Your task to perform on an android device: check android version Image 0: 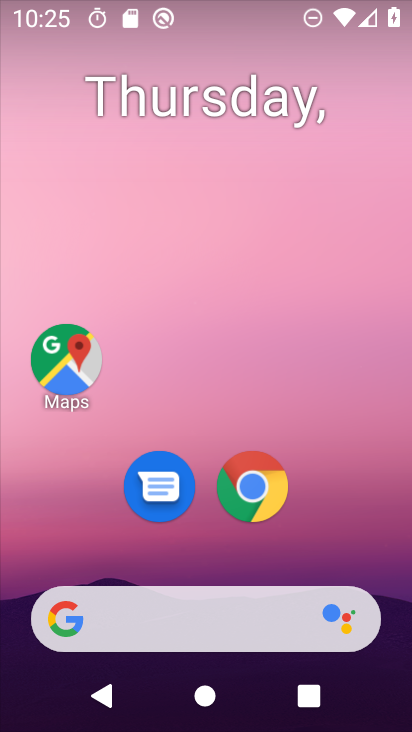
Step 0: drag from (208, 558) to (323, 54)
Your task to perform on an android device: check android version Image 1: 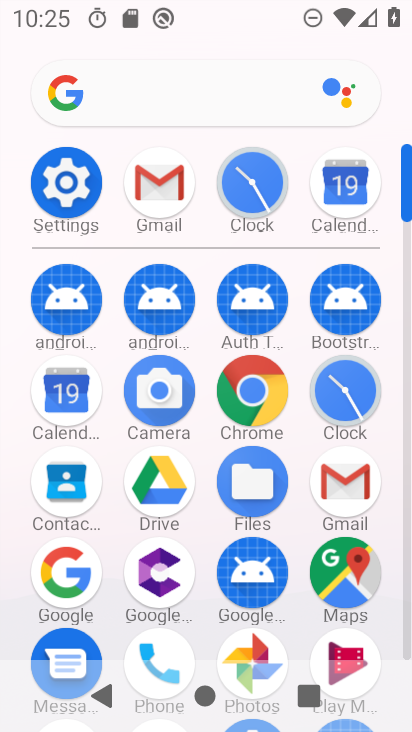
Step 1: click (61, 175)
Your task to perform on an android device: check android version Image 2: 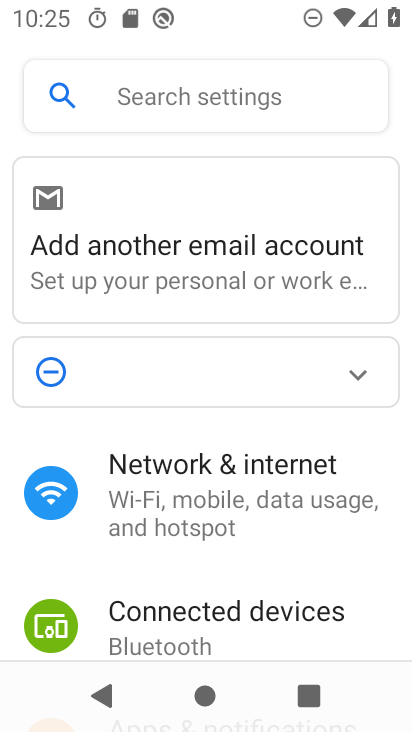
Step 2: drag from (271, 604) to (335, 92)
Your task to perform on an android device: check android version Image 3: 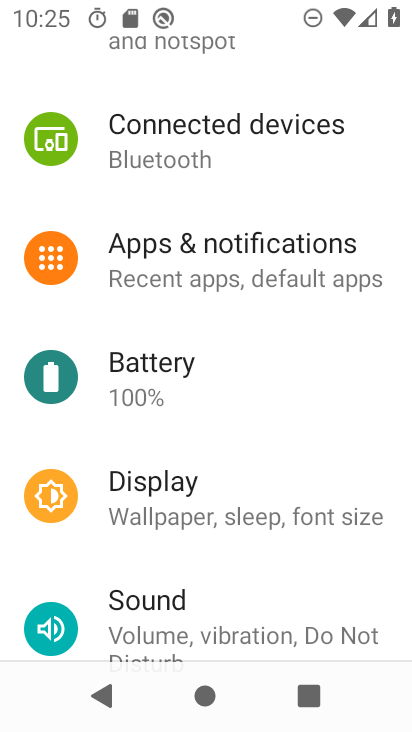
Step 3: drag from (214, 576) to (302, 120)
Your task to perform on an android device: check android version Image 4: 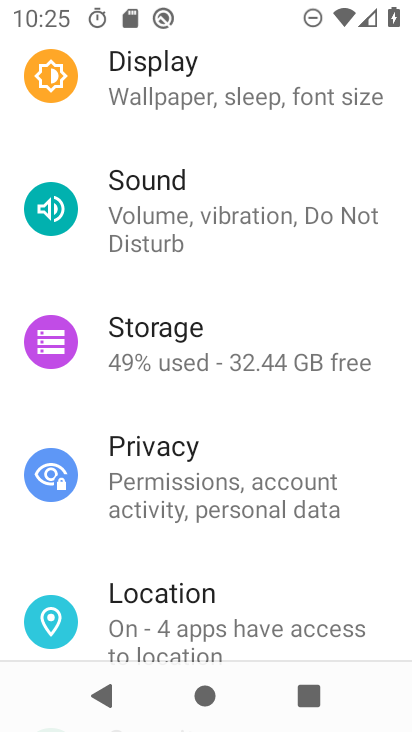
Step 4: drag from (181, 619) to (337, 82)
Your task to perform on an android device: check android version Image 5: 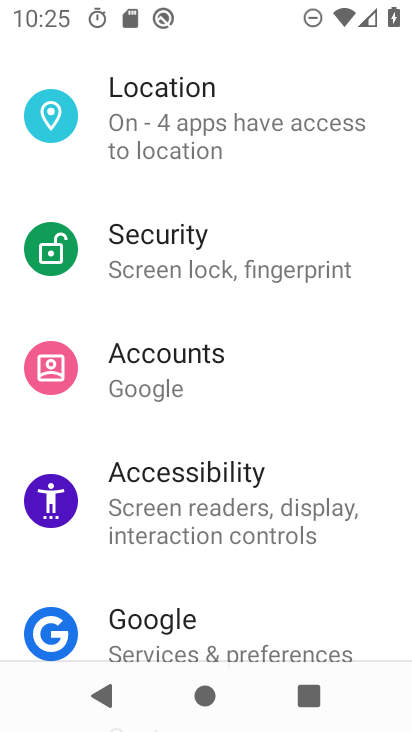
Step 5: drag from (130, 603) to (228, 221)
Your task to perform on an android device: check android version Image 6: 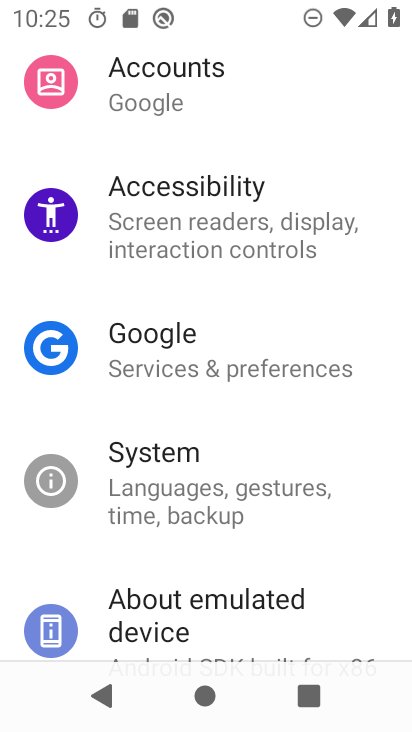
Step 6: drag from (150, 618) to (292, 112)
Your task to perform on an android device: check android version Image 7: 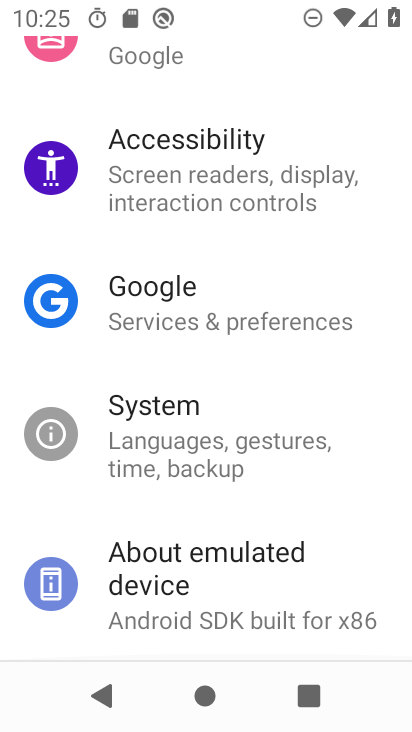
Step 7: drag from (273, 180) to (180, 635)
Your task to perform on an android device: check android version Image 8: 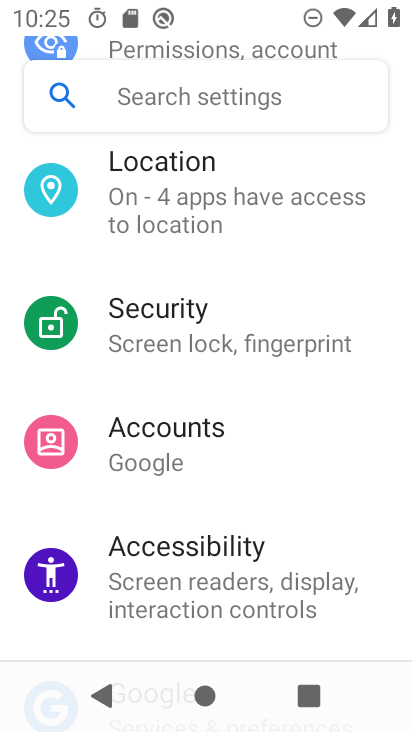
Step 8: drag from (217, 243) to (175, 646)
Your task to perform on an android device: check android version Image 9: 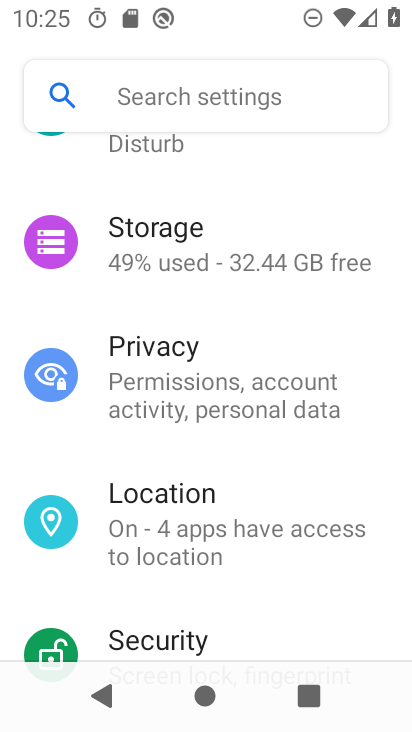
Step 9: drag from (186, 588) to (326, 78)
Your task to perform on an android device: check android version Image 10: 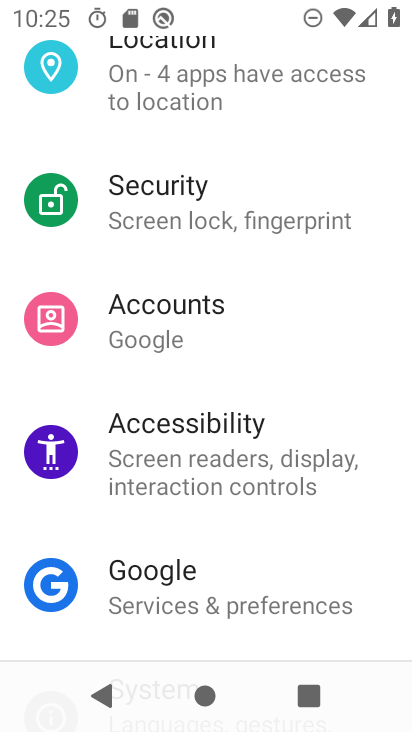
Step 10: drag from (234, 572) to (382, 46)
Your task to perform on an android device: check android version Image 11: 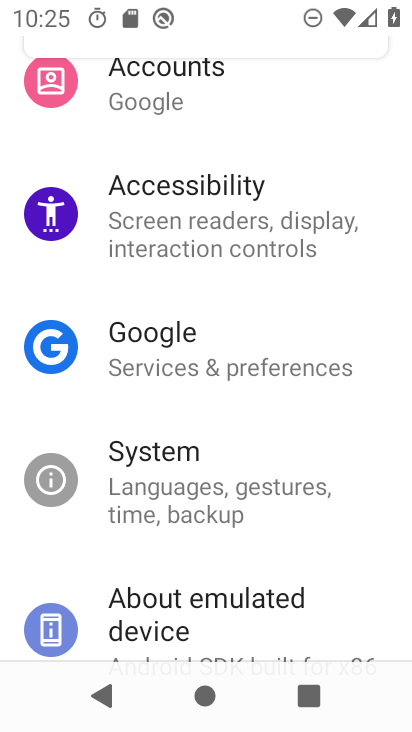
Step 11: click (199, 591)
Your task to perform on an android device: check android version Image 12: 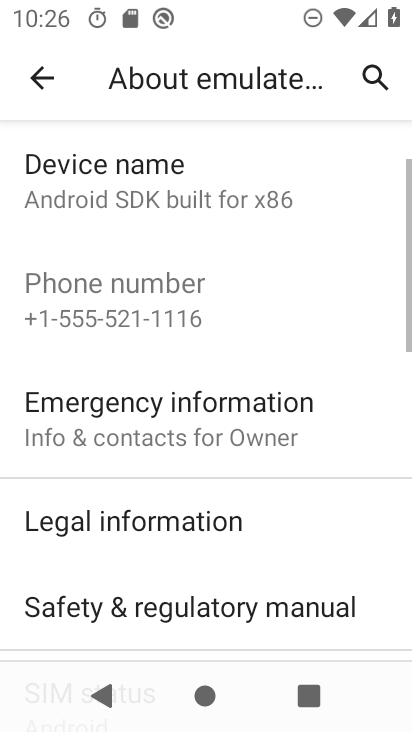
Step 12: drag from (183, 562) to (250, 68)
Your task to perform on an android device: check android version Image 13: 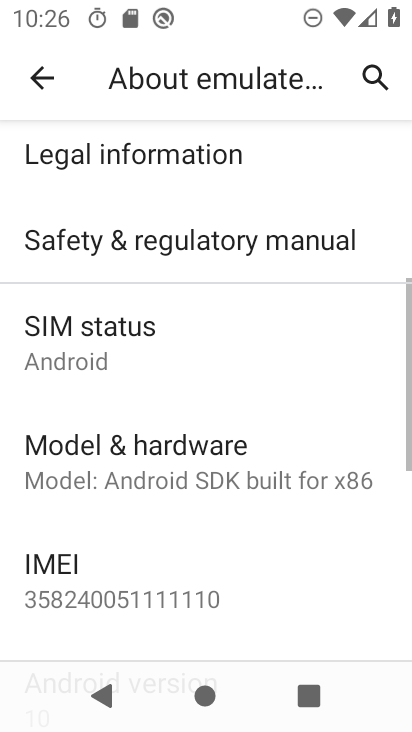
Step 13: drag from (104, 606) to (236, 69)
Your task to perform on an android device: check android version Image 14: 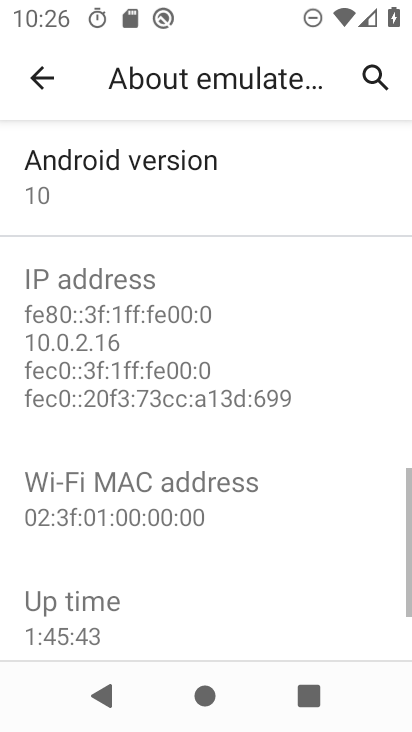
Step 14: click (135, 562)
Your task to perform on an android device: check android version Image 15: 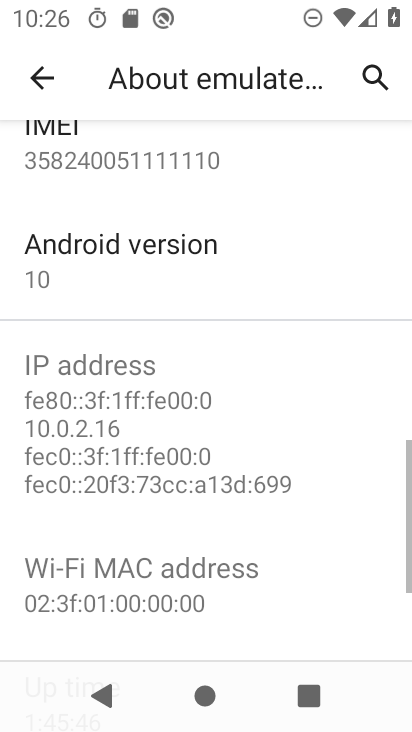
Step 15: click (102, 263)
Your task to perform on an android device: check android version Image 16: 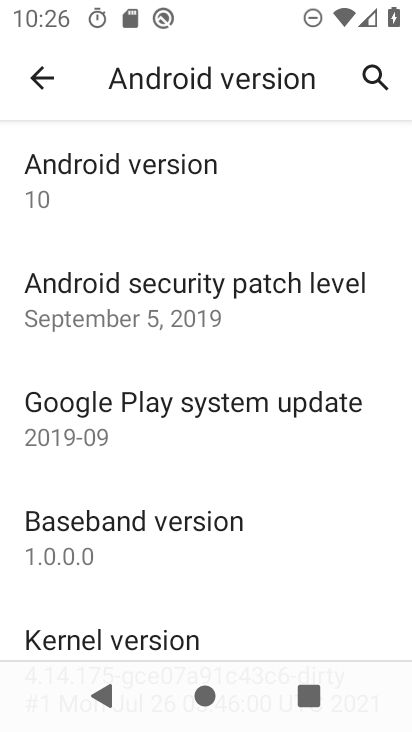
Step 16: task complete